Your task to perform on an android device: change timer sound Image 0: 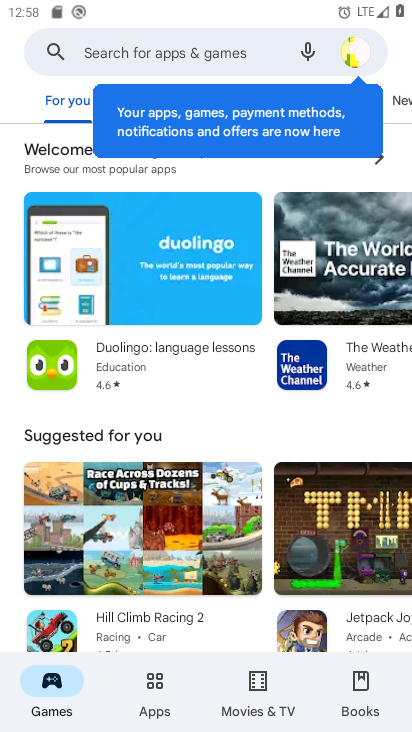
Step 0: press home button
Your task to perform on an android device: change timer sound Image 1: 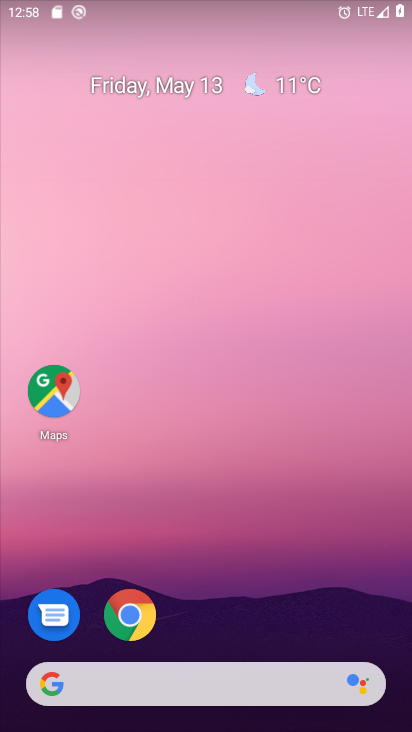
Step 1: drag from (217, 548) to (188, 18)
Your task to perform on an android device: change timer sound Image 2: 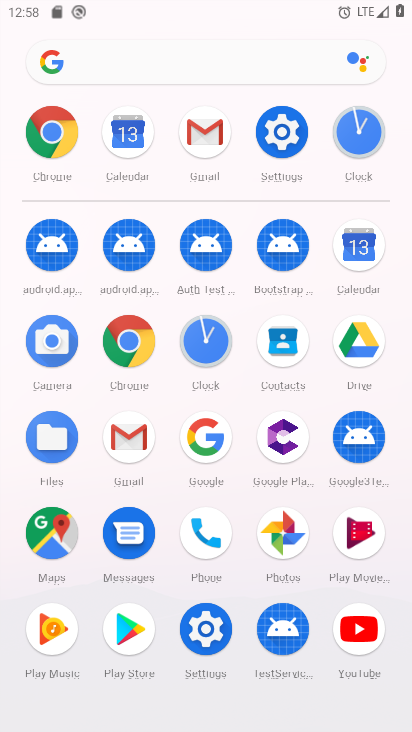
Step 2: click (359, 140)
Your task to perform on an android device: change timer sound Image 3: 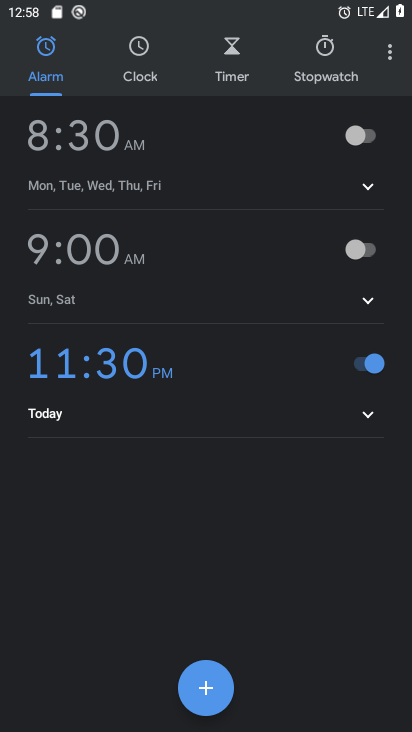
Step 3: click (384, 58)
Your task to perform on an android device: change timer sound Image 4: 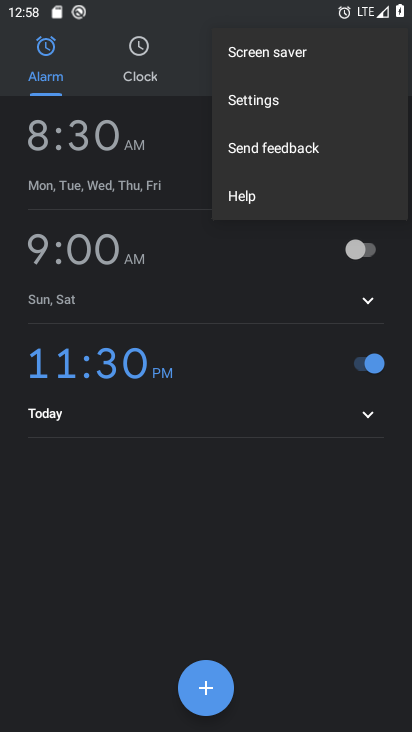
Step 4: click (321, 98)
Your task to perform on an android device: change timer sound Image 5: 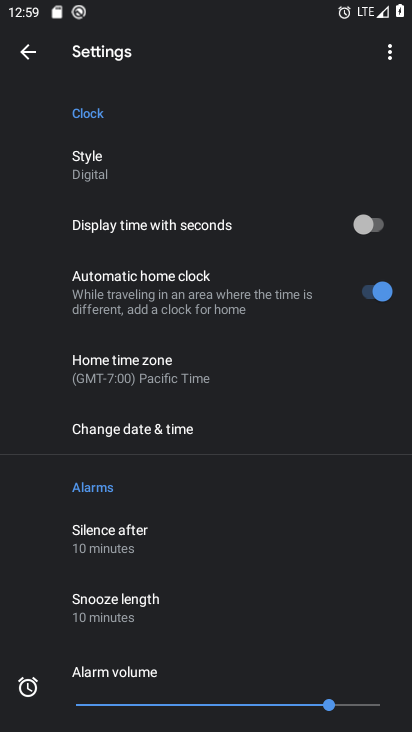
Step 5: drag from (228, 646) to (328, 86)
Your task to perform on an android device: change timer sound Image 6: 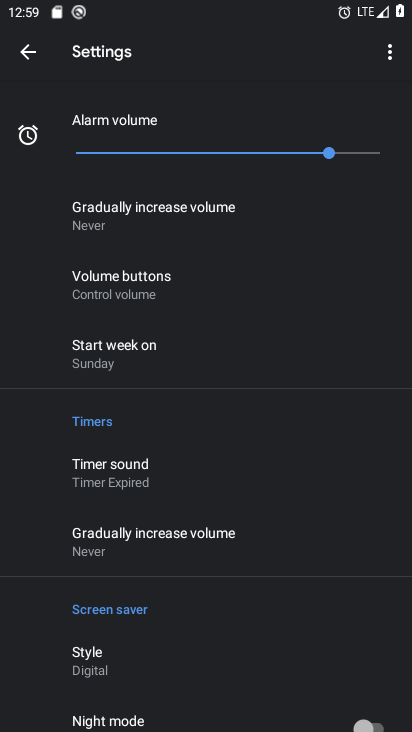
Step 6: click (120, 467)
Your task to perform on an android device: change timer sound Image 7: 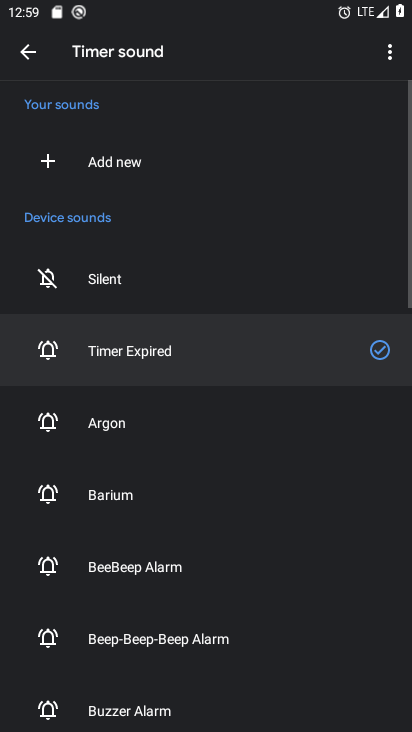
Step 7: click (127, 500)
Your task to perform on an android device: change timer sound Image 8: 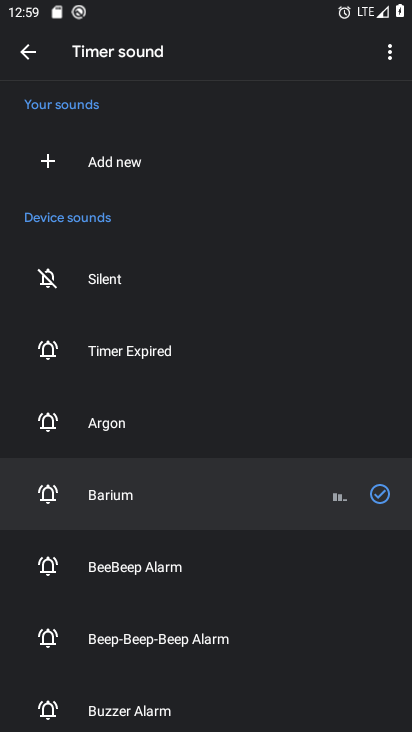
Step 8: task complete